Your task to perform on an android device: toggle priority inbox in the gmail app Image 0: 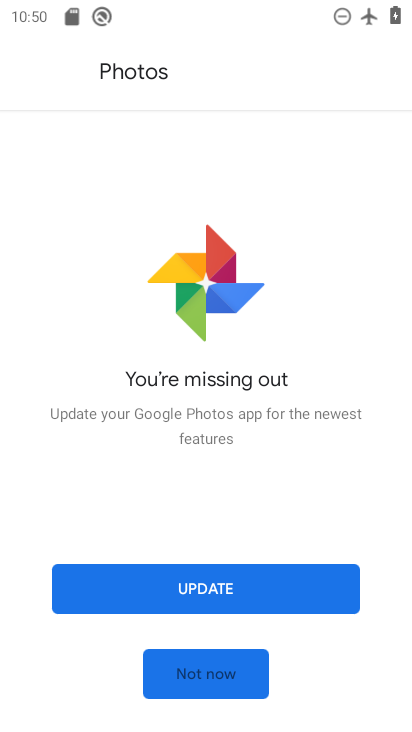
Step 0: press home button
Your task to perform on an android device: toggle priority inbox in the gmail app Image 1: 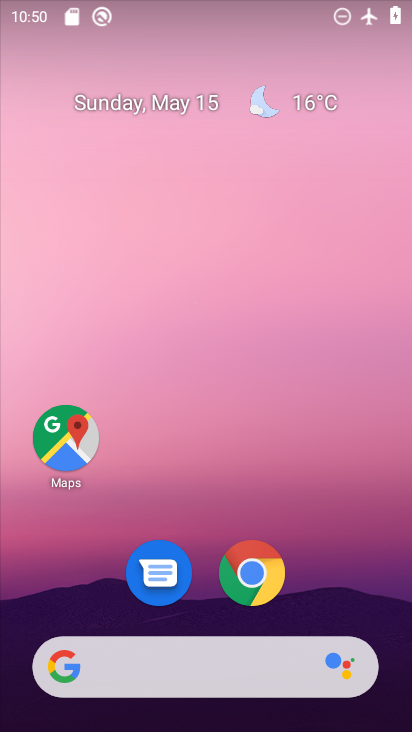
Step 1: drag from (355, 585) to (349, 133)
Your task to perform on an android device: toggle priority inbox in the gmail app Image 2: 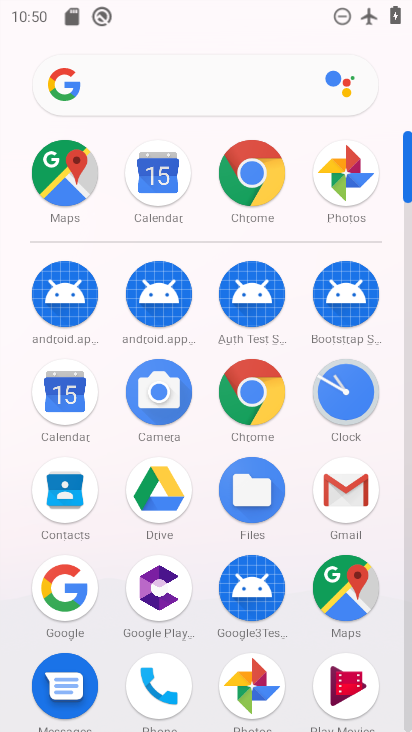
Step 2: drag from (333, 9) to (328, 591)
Your task to perform on an android device: toggle priority inbox in the gmail app Image 3: 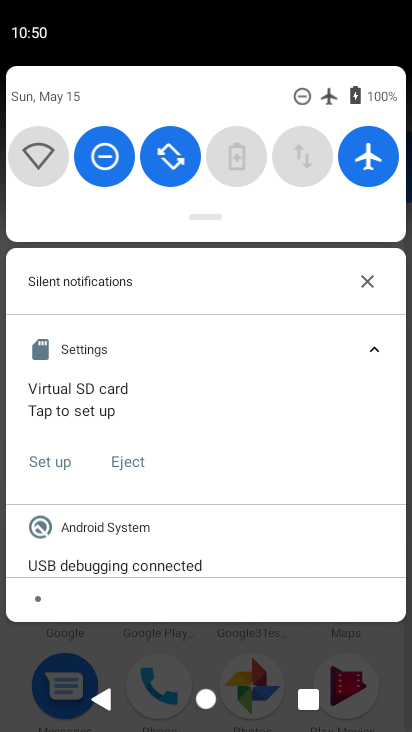
Step 3: click (362, 151)
Your task to perform on an android device: toggle priority inbox in the gmail app Image 4: 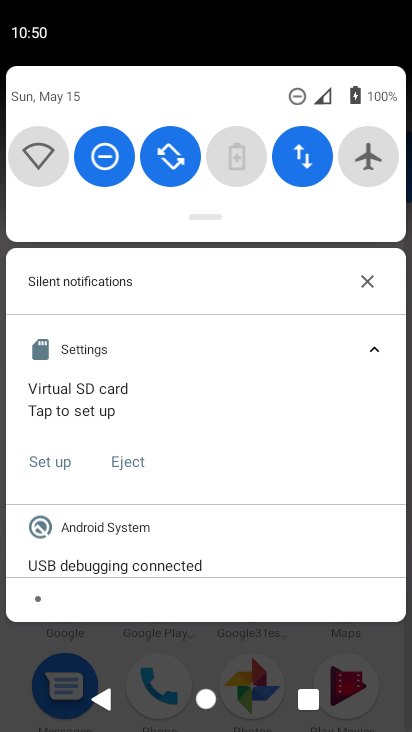
Step 4: drag from (370, 660) to (360, 106)
Your task to perform on an android device: toggle priority inbox in the gmail app Image 5: 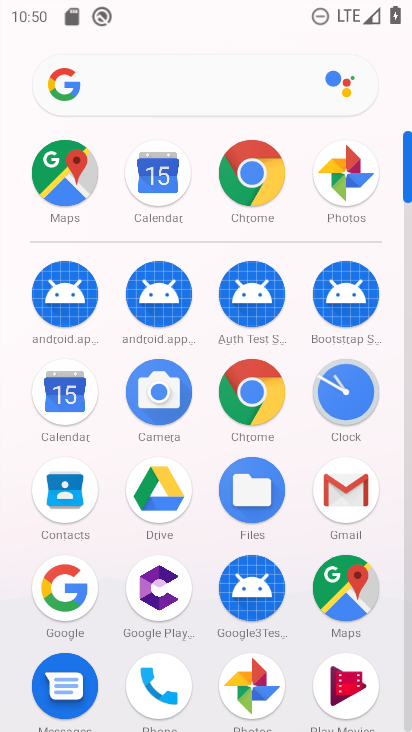
Step 5: click (341, 505)
Your task to perform on an android device: toggle priority inbox in the gmail app Image 6: 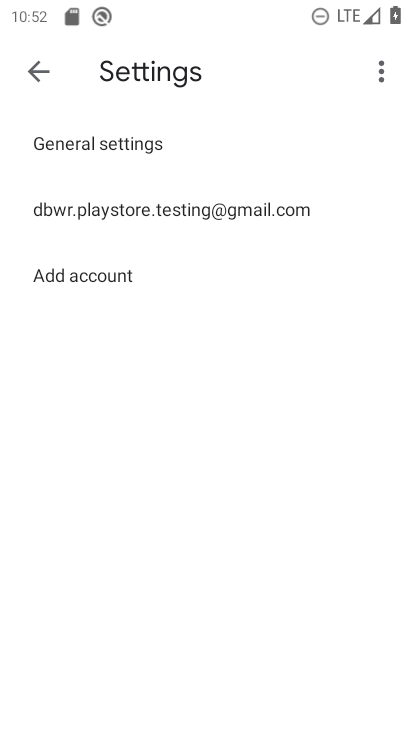
Step 6: click (325, 210)
Your task to perform on an android device: toggle priority inbox in the gmail app Image 7: 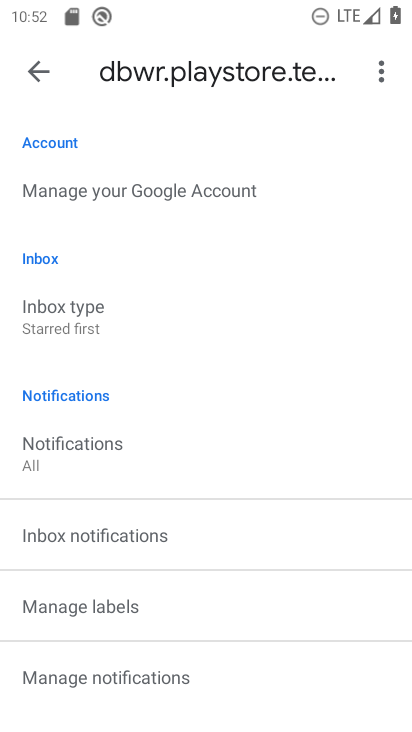
Step 7: drag from (304, 697) to (208, 199)
Your task to perform on an android device: toggle priority inbox in the gmail app Image 8: 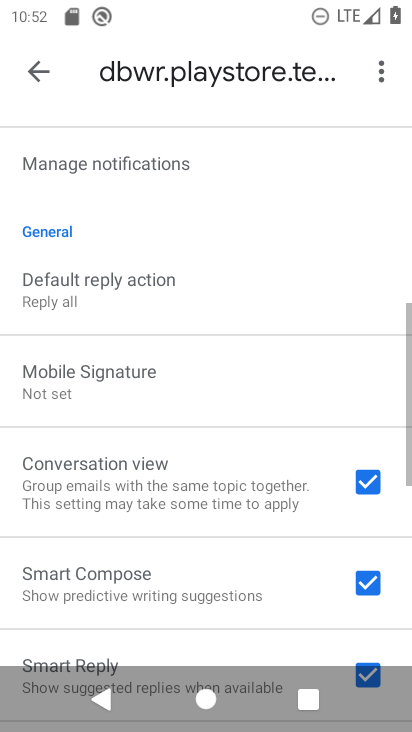
Step 8: drag from (311, 503) to (280, 139)
Your task to perform on an android device: toggle priority inbox in the gmail app Image 9: 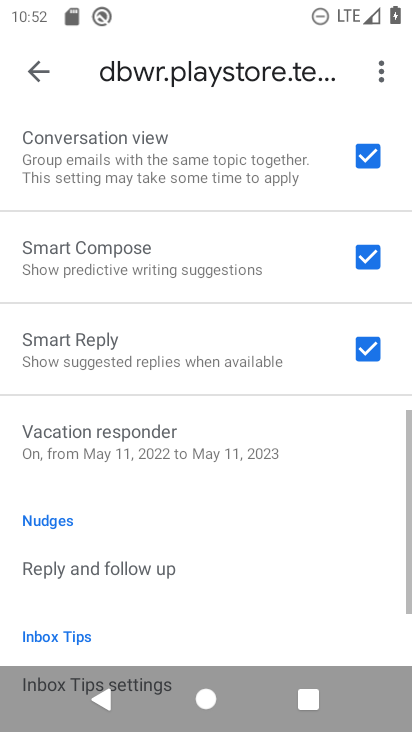
Step 9: drag from (335, 374) to (324, 233)
Your task to perform on an android device: toggle priority inbox in the gmail app Image 10: 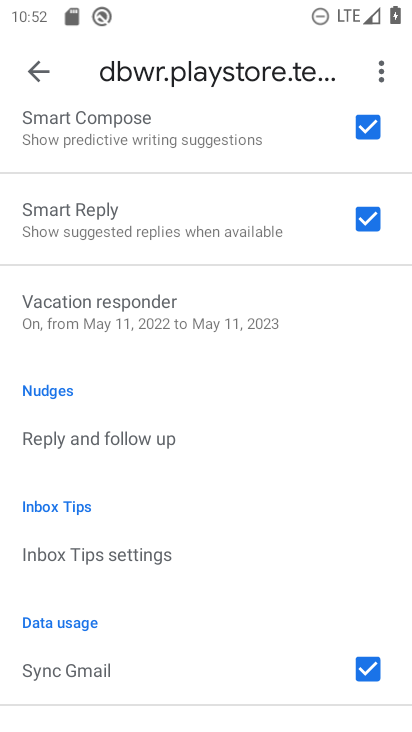
Step 10: drag from (287, 374) to (320, 658)
Your task to perform on an android device: toggle priority inbox in the gmail app Image 11: 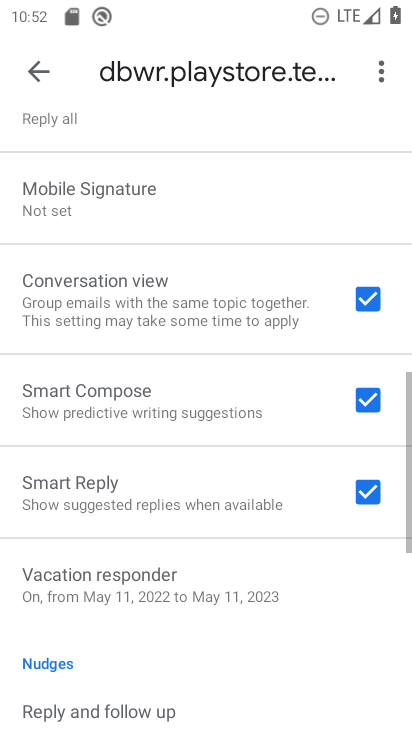
Step 11: drag from (227, 380) to (288, 713)
Your task to perform on an android device: toggle priority inbox in the gmail app Image 12: 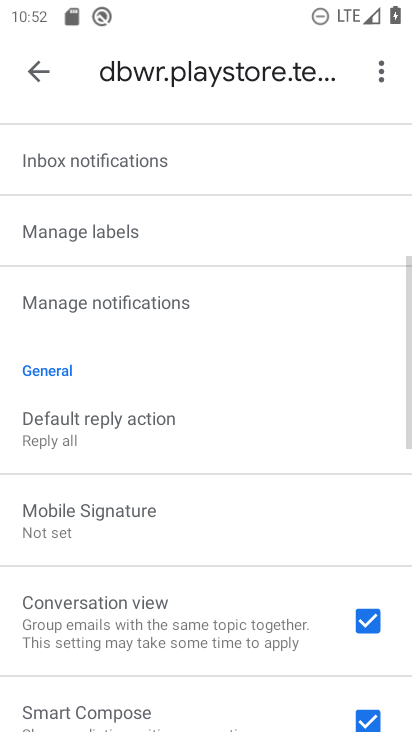
Step 12: drag from (213, 375) to (303, 694)
Your task to perform on an android device: toggle priority inbox in the gmail app Image 13: 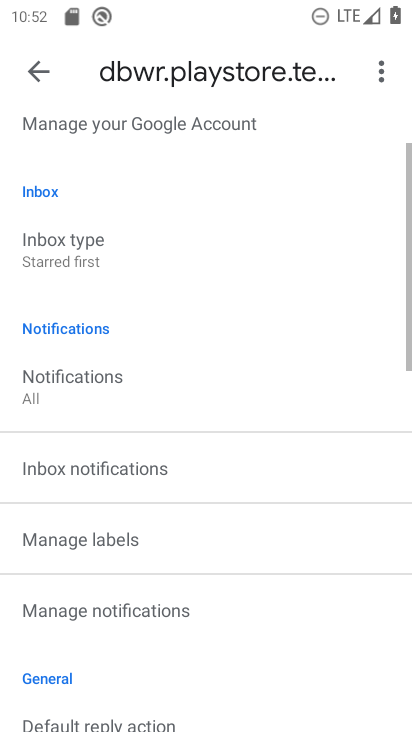
Step 13: drag from (190, 425) to (216, 510)
Your task to perform on an android device: toggle priority inbox in the gmail app Image 14: 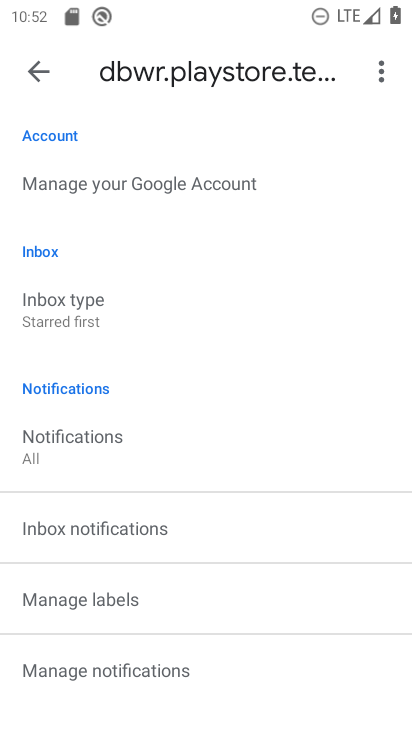
Step 14: click (137, 309)
Your task to perform on an android device: toggle priority inbox in the gmail app Image 15: 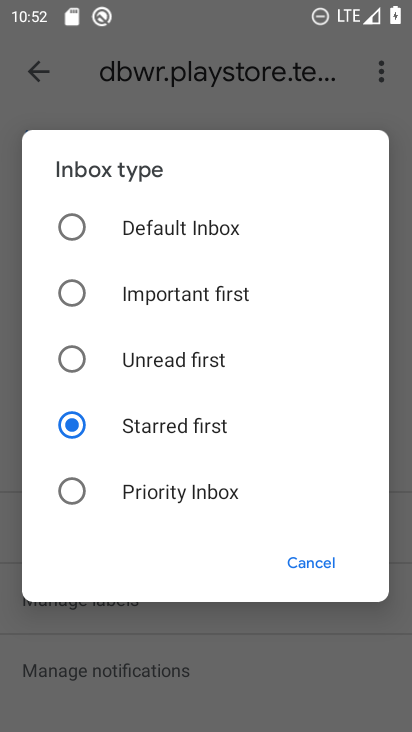
Step 15: click (156, 483)
Your task to perform on an android device: toggle priority inbox in the gmail app Image 16: 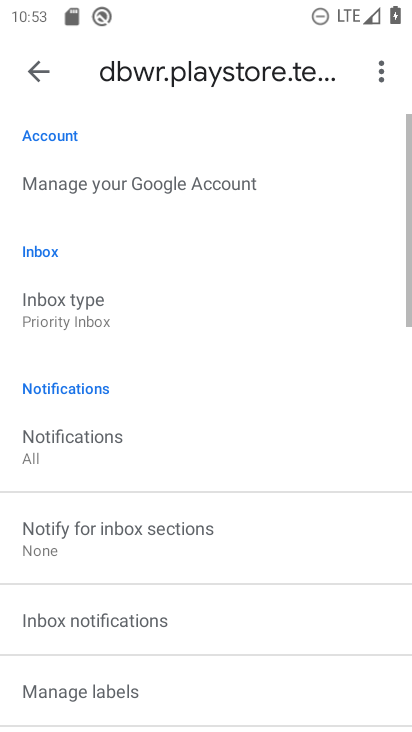
Step 16: task complete